Your task to perform on an android device: Search for the new Nike Air Max 270 on Nike.com Image 0: 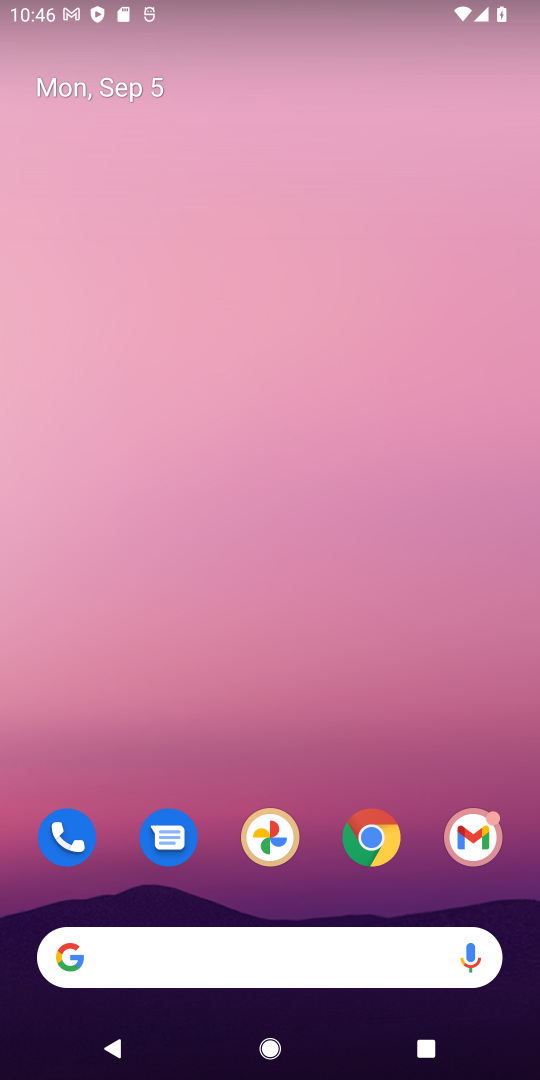
Step 0: drag from (316, 889) to (263, 109)
Your task to perform on an android device: Search for the new Nike Air Max 270 on Nike.com Image 1: 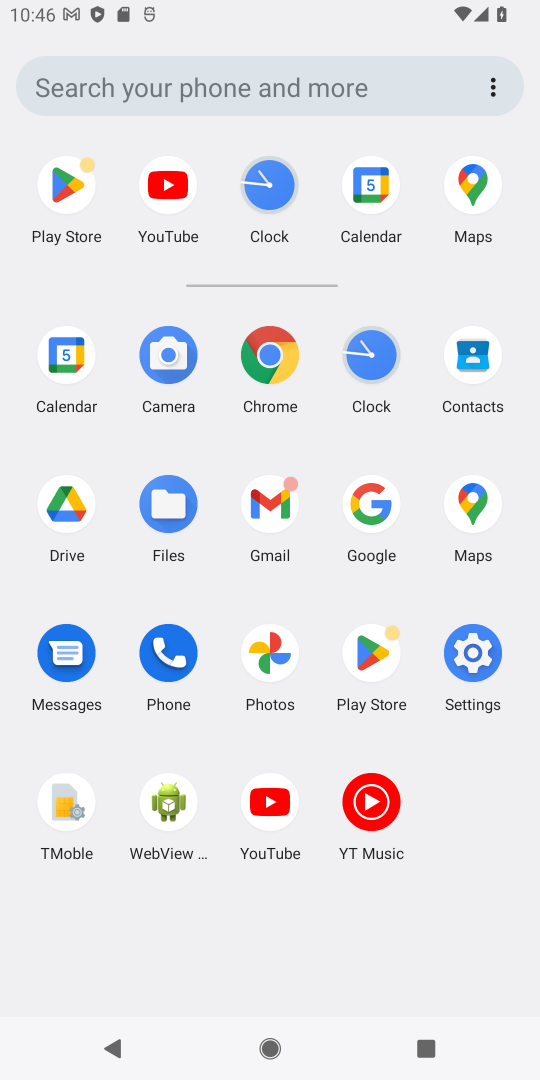
Step 1: click (281, 353)
Your task to perform on an android device: Search for the new Nike Air Max 270 on Nike.com Image 2: 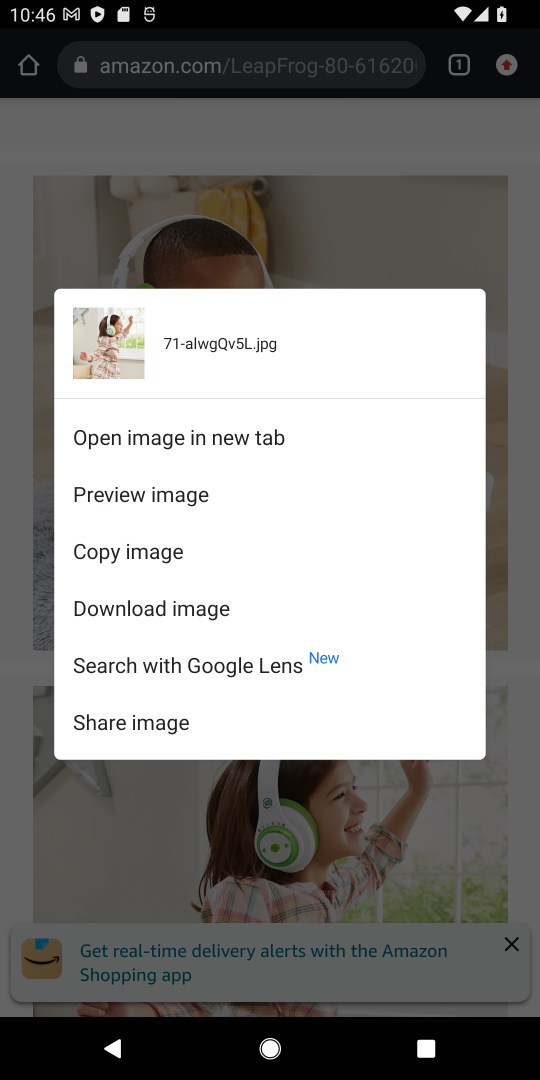
Step 2: click (316, 873)
Your task to perform on an android device: Search for the new Nike Air Max 270 on Nike.com Image 3: 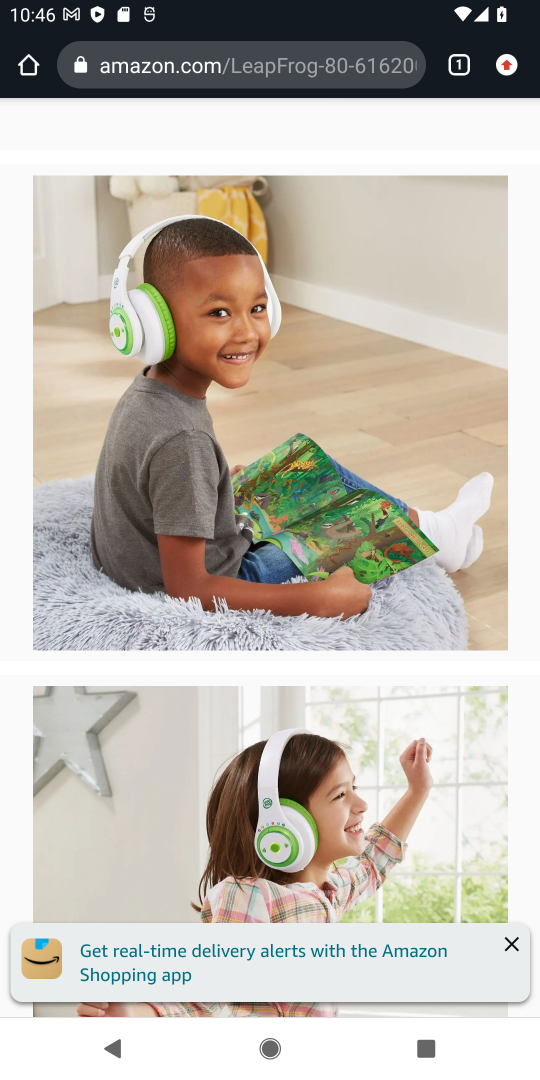
Step 3: click (224, 61)
Your task to perform on an android device: Search for the new Nike Air Max 270 on Nike.com Image 4: 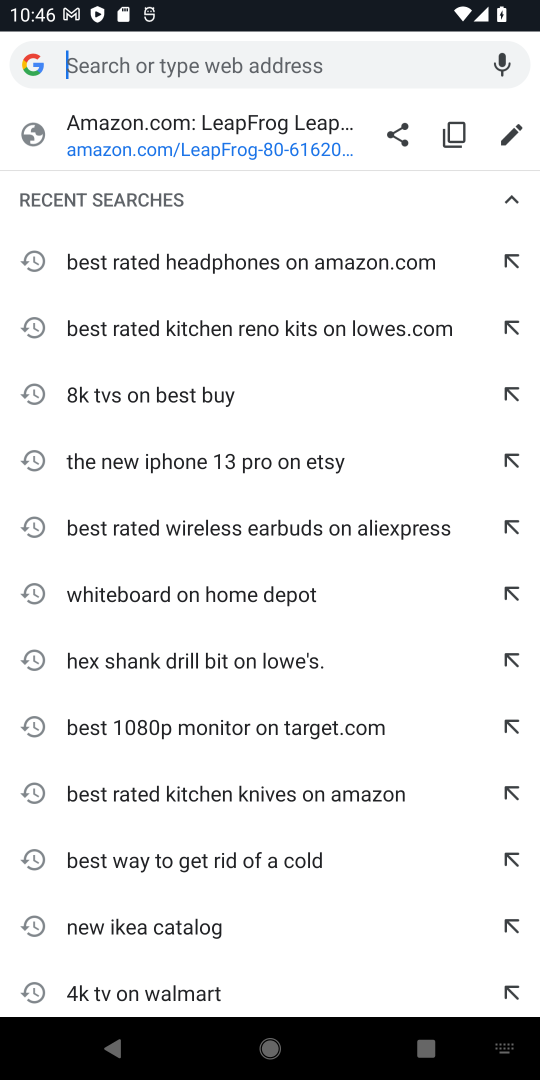
Step 4: click (192, 61)
Your task to perform on an android device: Search for the new Nike Air Max 270 on Nike.com Image 5: 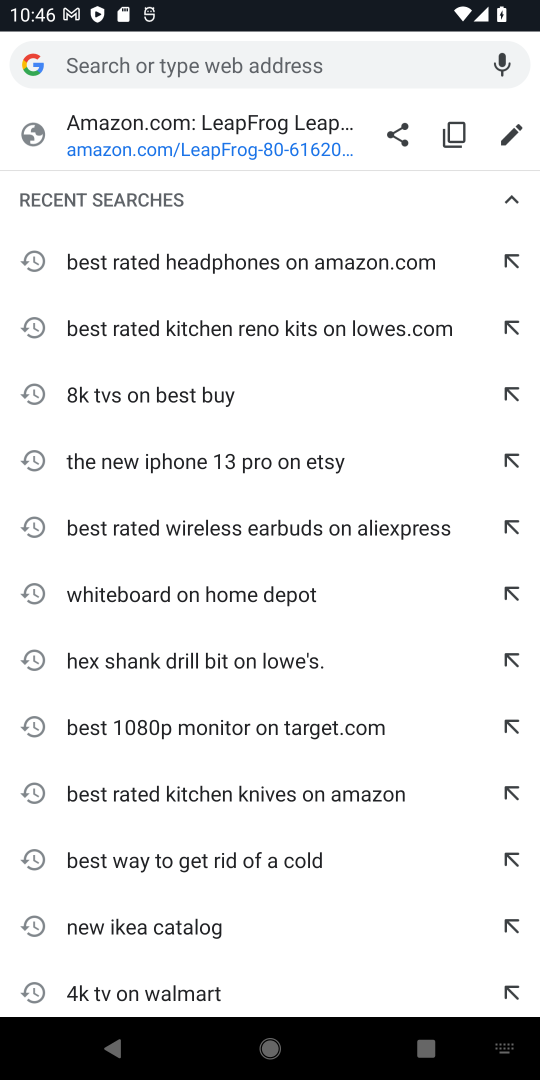
Step 5: type "the new Nike Air Max 270 on Nike.com"
Your task to perform on an android device: Search for the new Nike Air Max 270 on Nike.com Image 6: 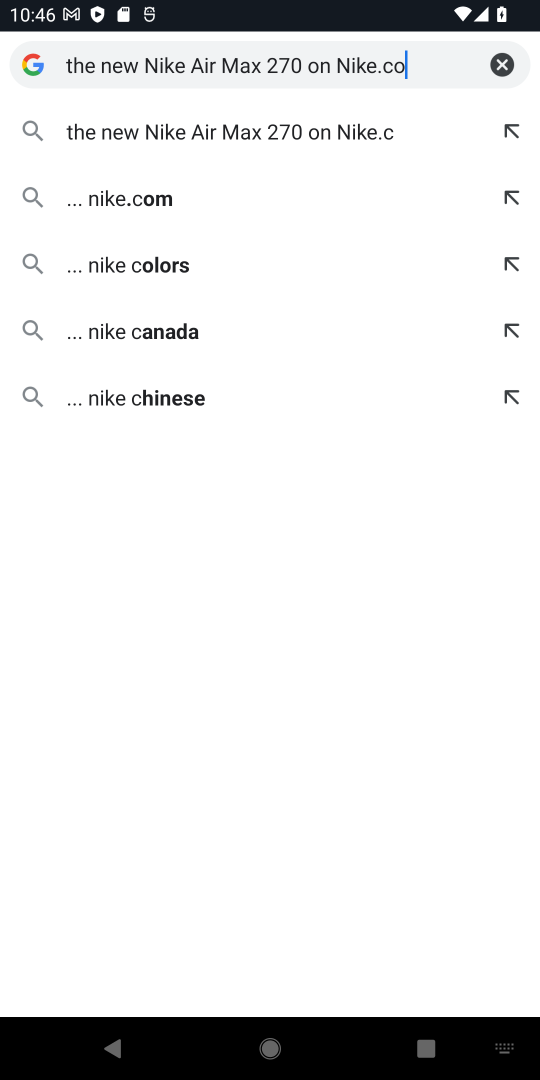
Step 6: type ""
Your task to perform on an android device: Search for the new Nike Air Max 270 on Nike.com Image 7: 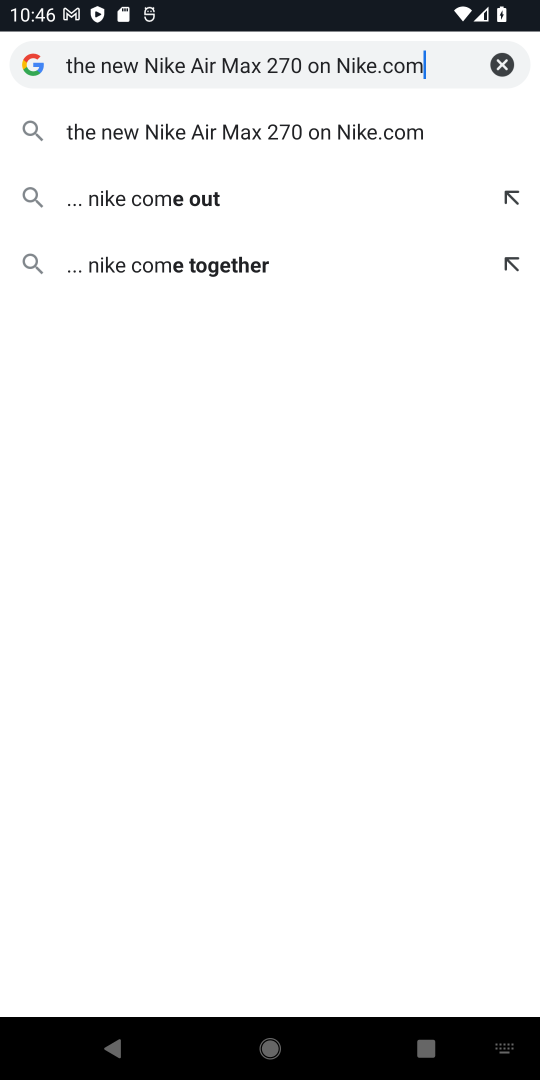
Step 7: click (213, 131)
Your task to perform on an android device: Search for the new Nike Air Max 270 on Nike.com Image 8: 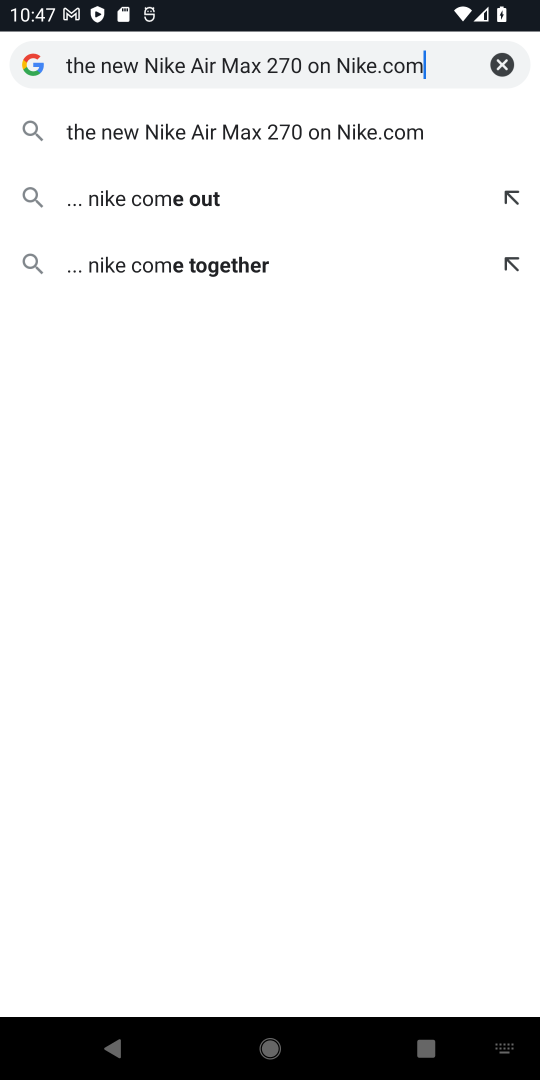
Step 8: click (318, 137)
Your task to perform on an android device: Search for the new Nike Air Max 270 on Nike.com Image 9: 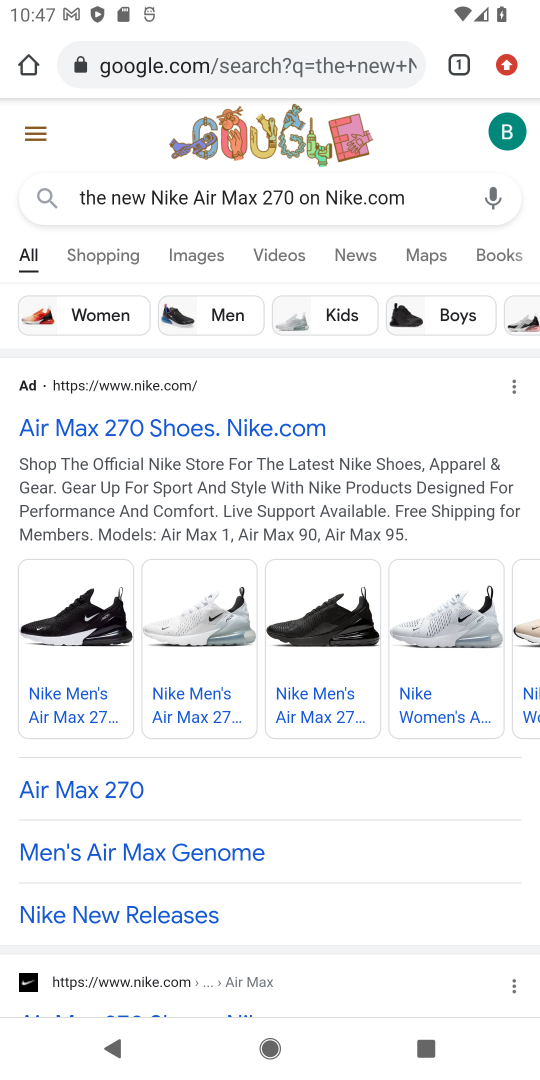
Step 9: click (167, 423)
Your task to perform on an android device: Search for the new Nike Air Max 270 on Nike.com Image 10: 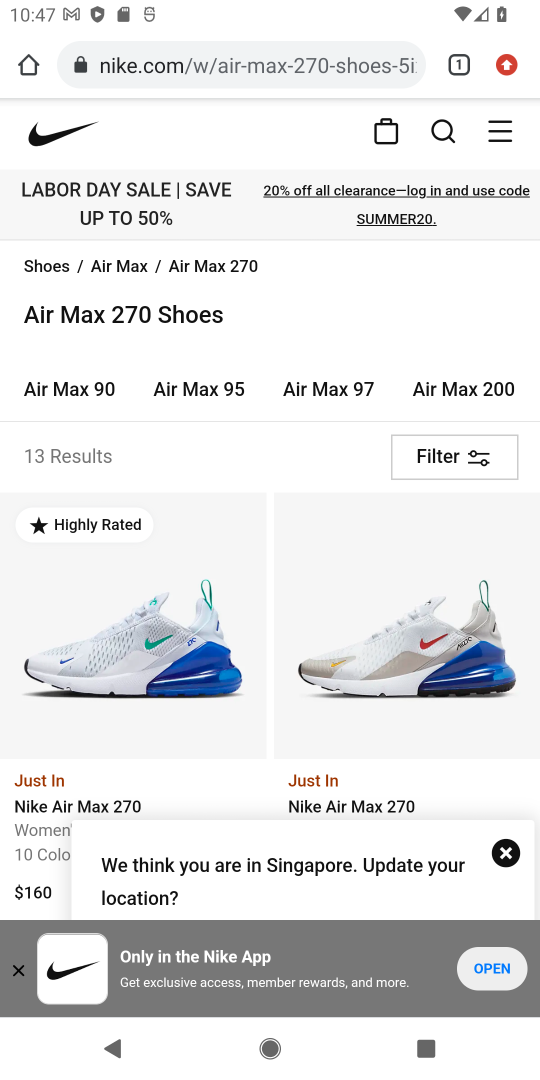
Step 10: drag from (262, 793) to (269, 175)
Your task to perform on an android device: Search for the new Nike Air Max 270 on Nike.com Image 11: 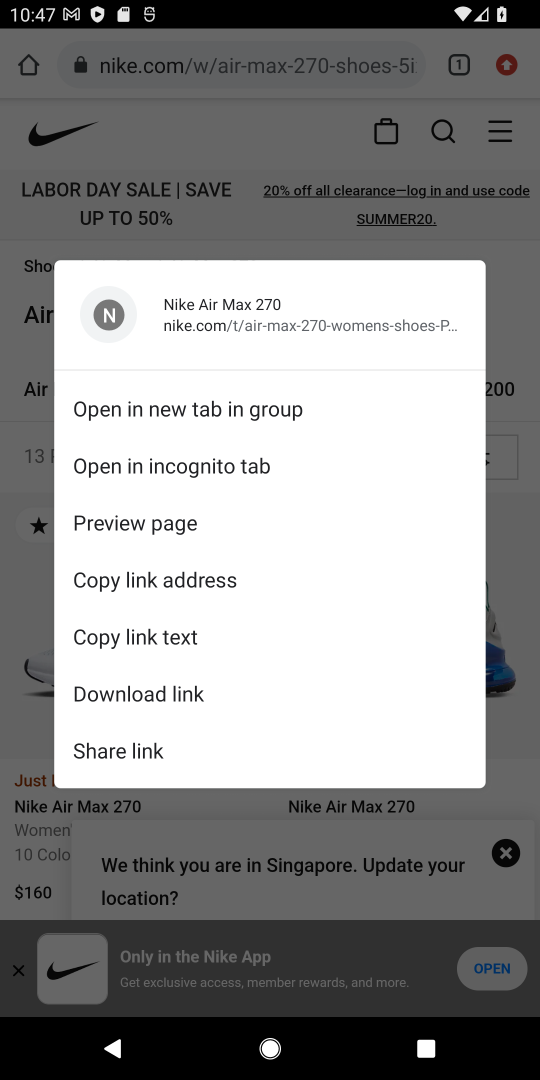
Step 11: click (37, 223)
Your task to perform on an android device: Search for the new Nike Air Max 270 on Nike.com Image 12: 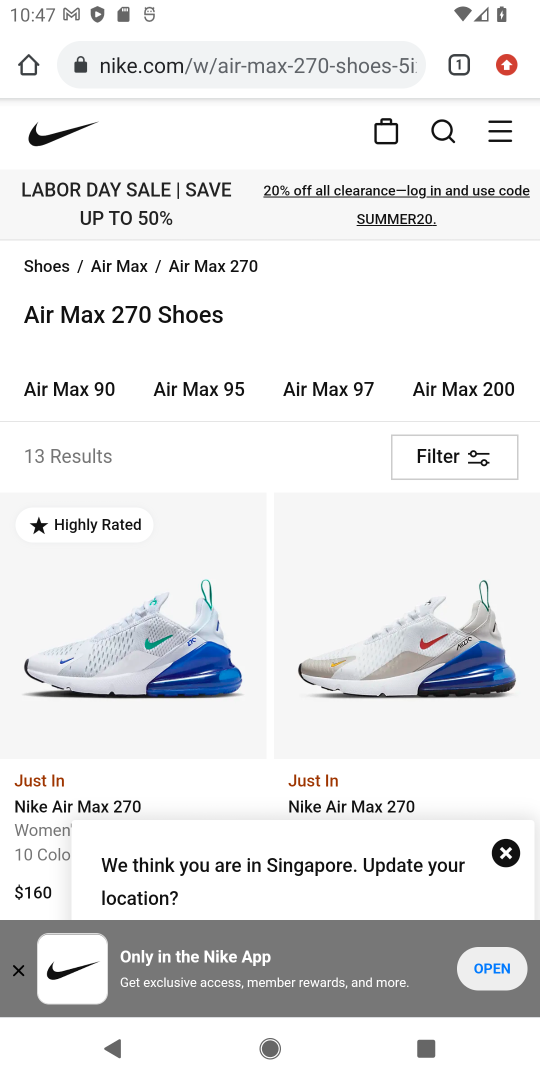
Step 12: task complete